Your task to perform on an android device: turn on improve location accuracy Image 0: 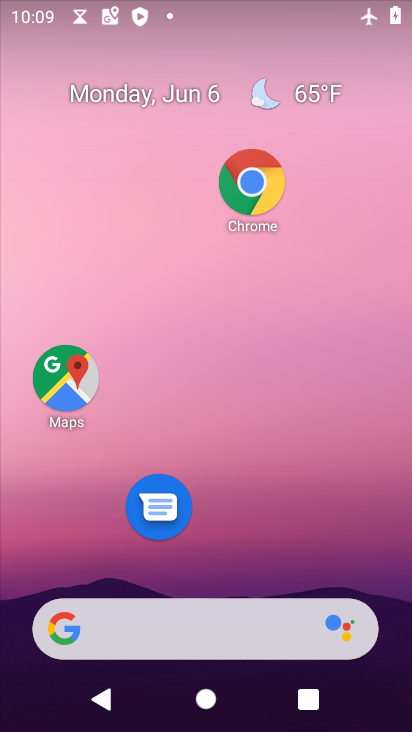
Step 0: drag from (243, 567) to (209, 259)
Your task to perform on an android device: turn on improve location accuracy Image 1: 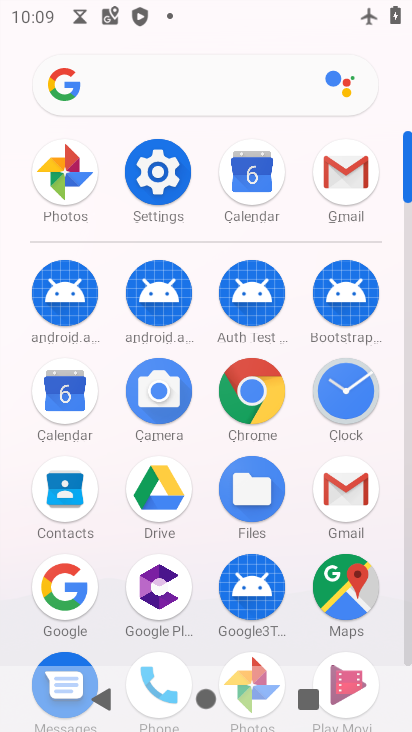
Step 1: click (167, 175)
Your task to perform on an android device: turn on improve location accuracy Image 2: 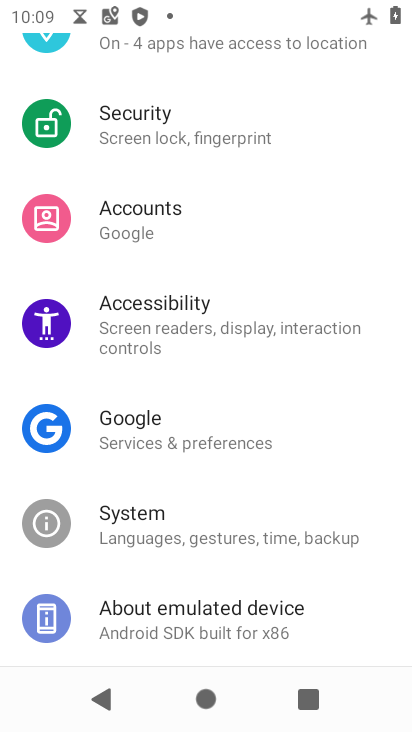
Step 2: drag from (191, 156) to (186, 567)
Your task to perform on an android device: turn on improve location accuracy Image 3: 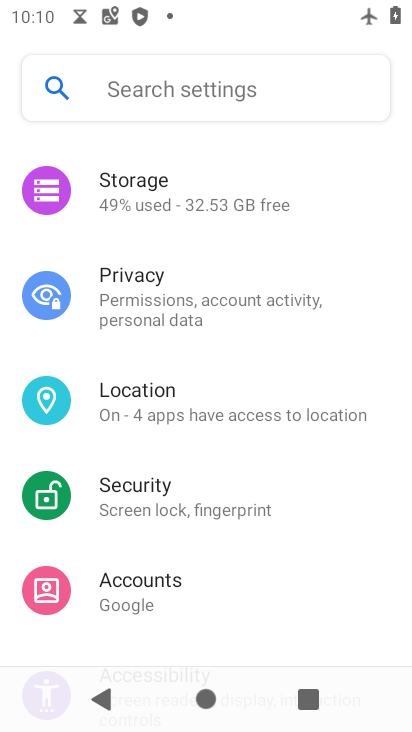
Step 3: click (151, 390)
Your task to perform on an android device: turn on improve location accuracy Image 4: 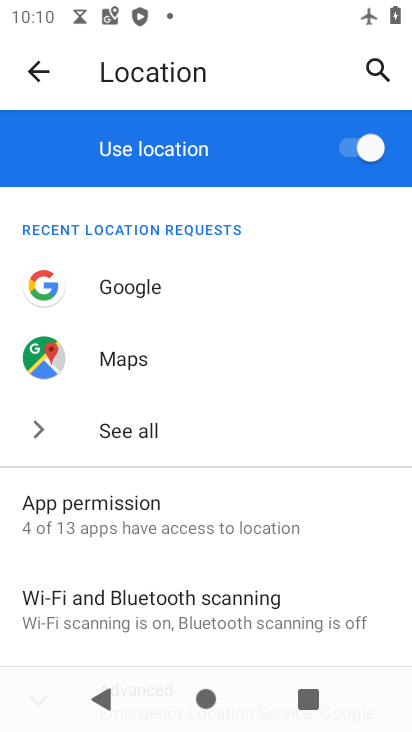
Step 4: drag from (173, 602) to (186, 372)
Your task to perform on an android device: turn on improve location accuracy Image 5: 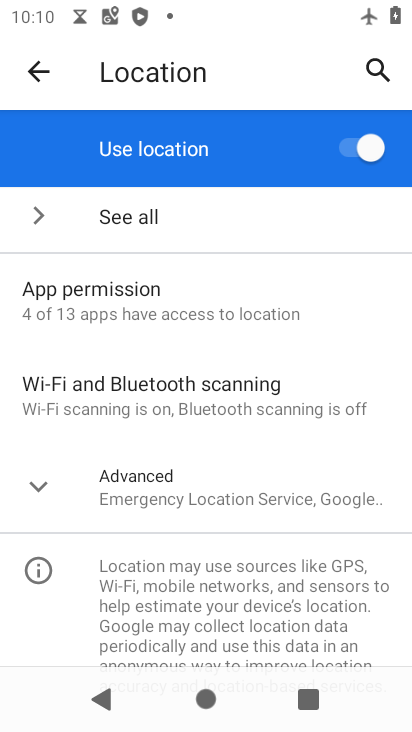
Step 5: click (157, 500)
Your task to perform on an android device: turn on improve location accuracy Image 6: 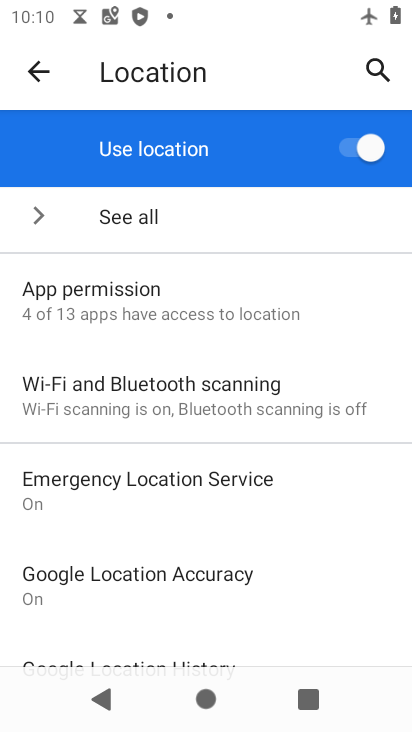
Step 6: click (157, 414)
Your task to perform on an android device: turn on improve location accuracy Image 7: 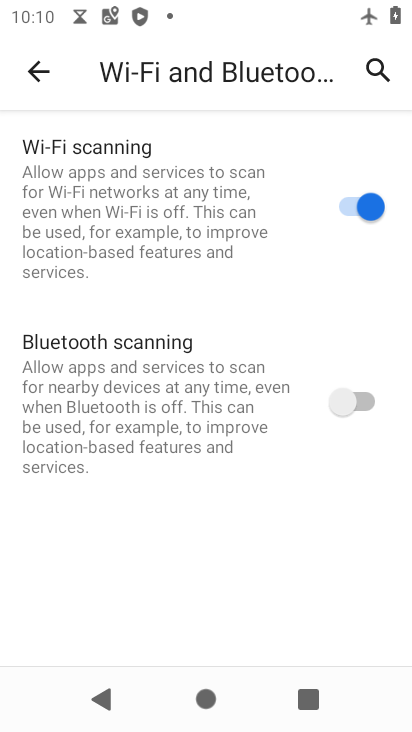
Step 7: click (47, 70)
Your task to perform on an android device: turn on improve location accuracy Image 8: 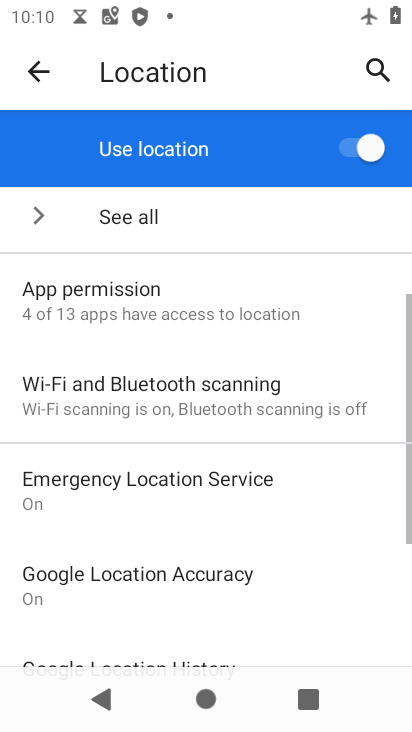
Step 8: drag from (206, 591) to (216, 494)
Your task to perform on an android device: turn on improve location accuracy Image 9: 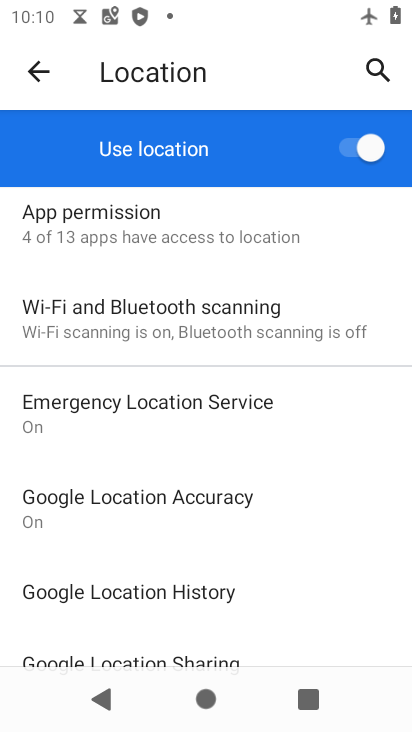
Step 9: click (162, 502)
Your task to perform on an android device: turn on improve location accuracy Image 10: 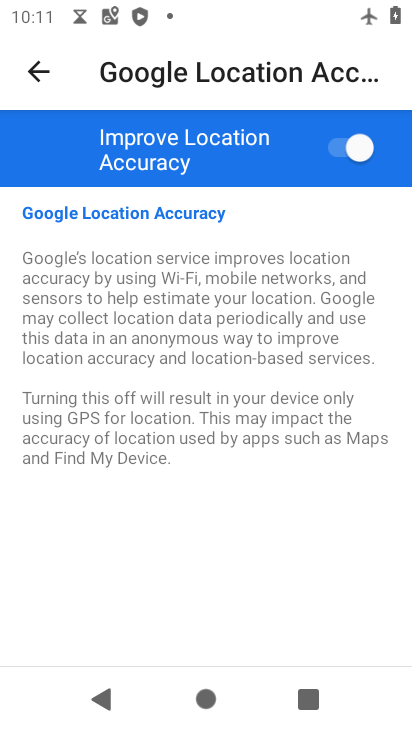
Step 10: task complete